Your task to perform on an android device: add a contact Image 0: 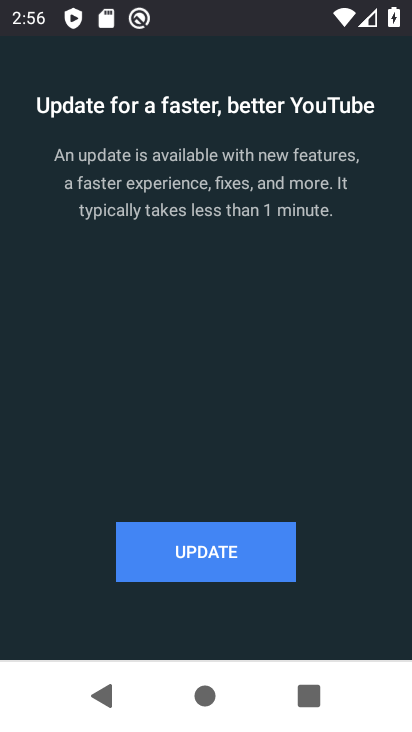
Step 0: press home button
Your task to perform on an android device: add a contact Image 1: 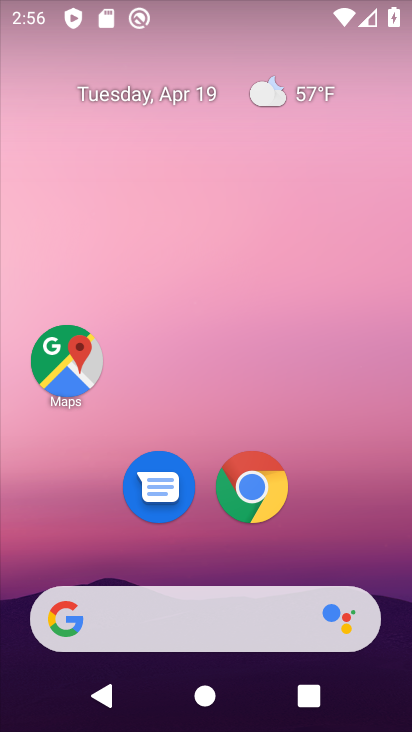
Step 1: drag from (338, 537) to (314, 66)
Your task to perform on an android device: add a contact Image 2: 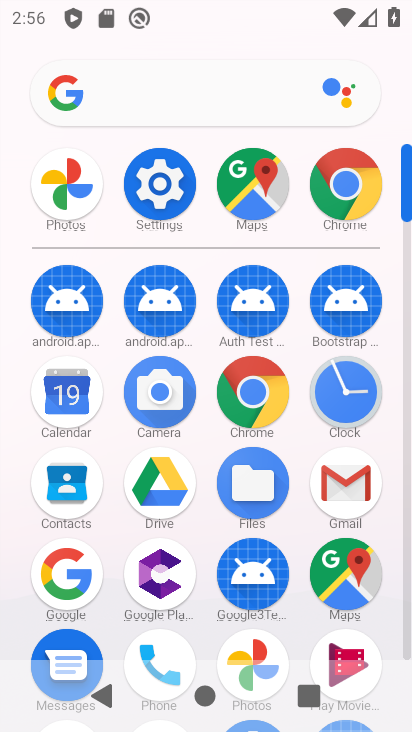
Step 2: click (82, 489)
Your task to perform on an android device: add a contact Image 3: 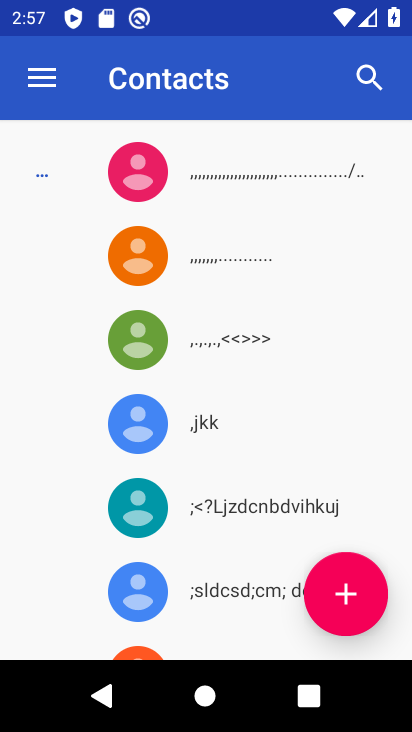
Step 3: click (351, 608)
Your task to perform on an android device: add a contact Image 4: 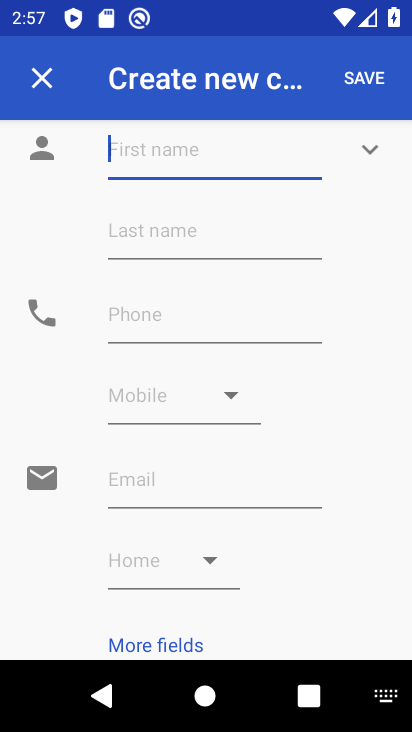
Step 4: type "yash"
Your task to perform on an android device: add a contact Image 5: 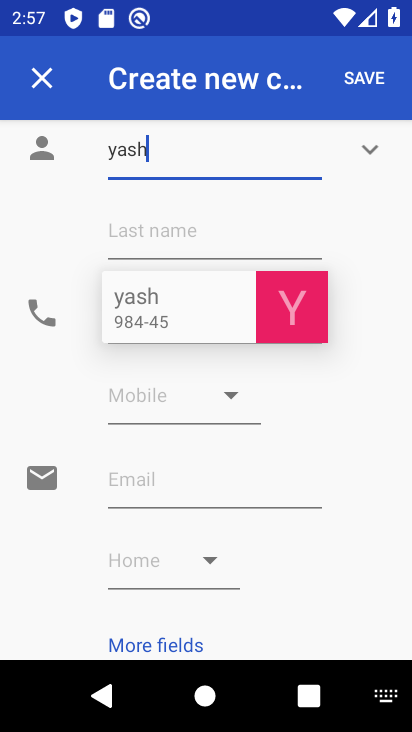
Step 5: click (181, 322)
Your task to perform on an android device: add a contact Image 6: 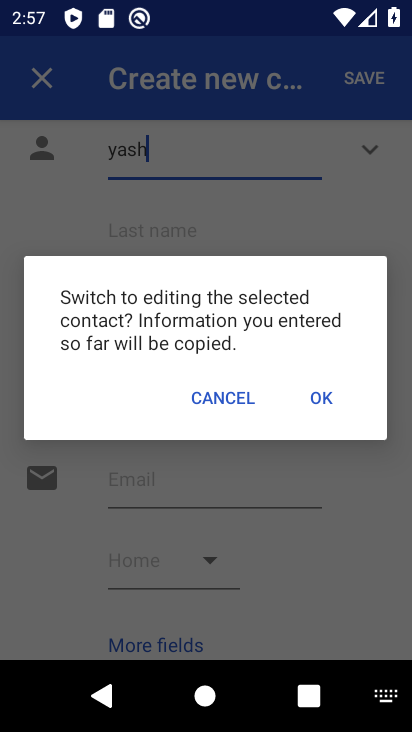
Step 6: click (221, 396)
Your task to perform on an android device: add a contact Image 7: 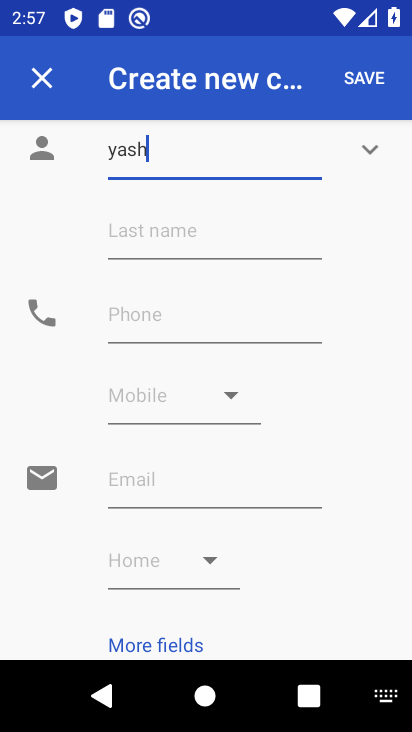
Step 7: click (191, 319)
Your task to perform on an android device: add a contact Image 8: 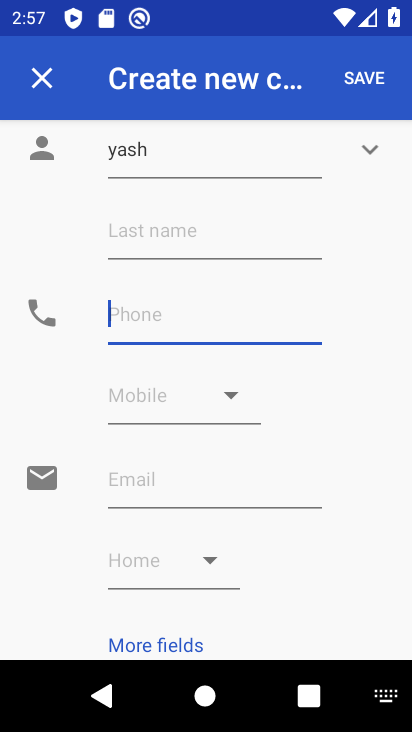
Step 8: type "7584837483"
Your task to perform on an android device: add a contact Image 9: 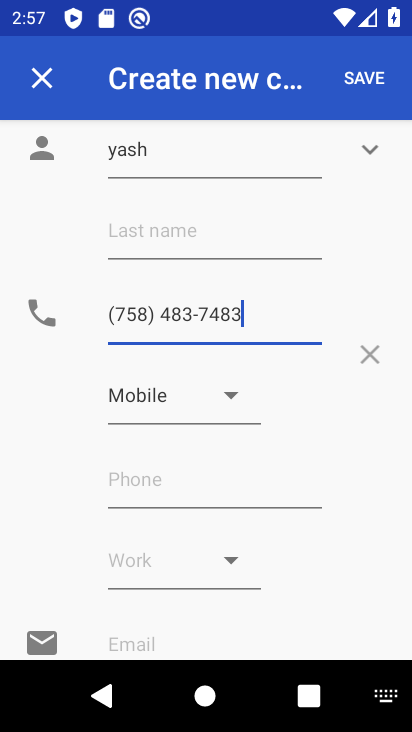
Step 9: click (378, 85)
Your task to perform on an android device: add a contact Image 10: 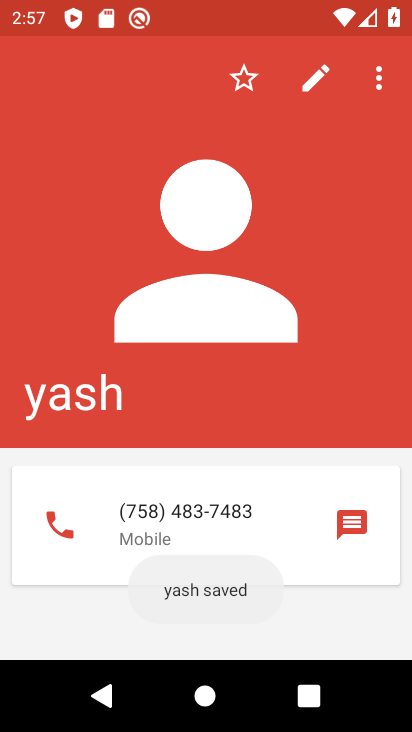
Step 10: task complete